Your task to perform on an android device: Go to wifi settings Image 0: 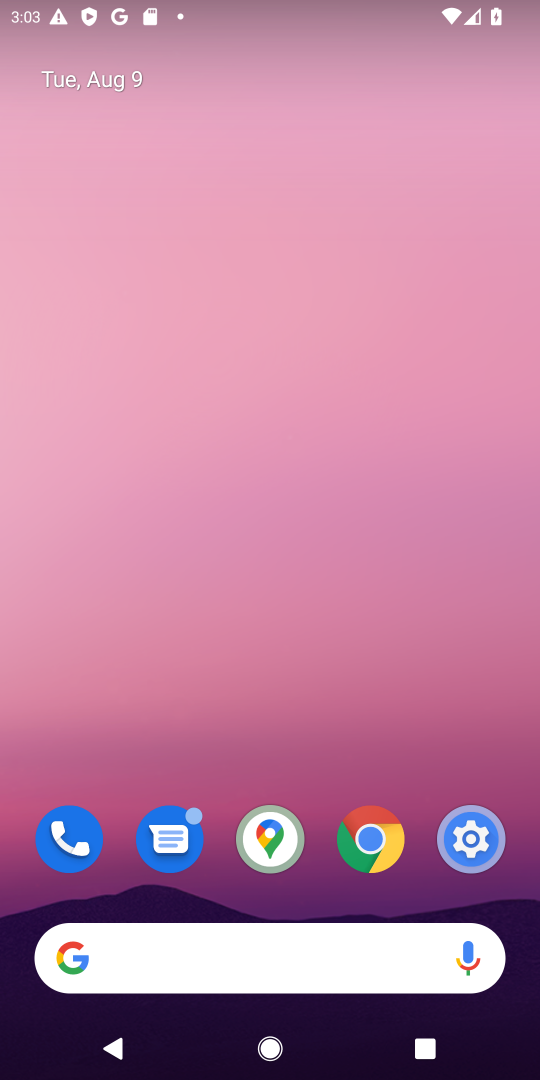
Step 0: press home button
Your task to perform on an android device: Go to wifi settings Image 1: 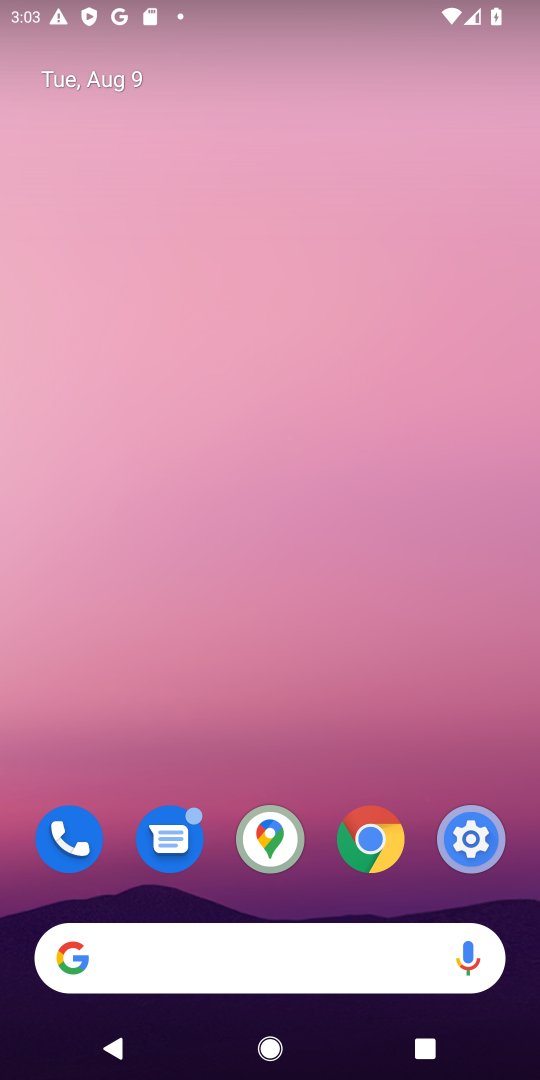
Step 1: drag from (407, 765) to (514, 44)
Your task to perform on an android device: Go to wifi settings Image 2: 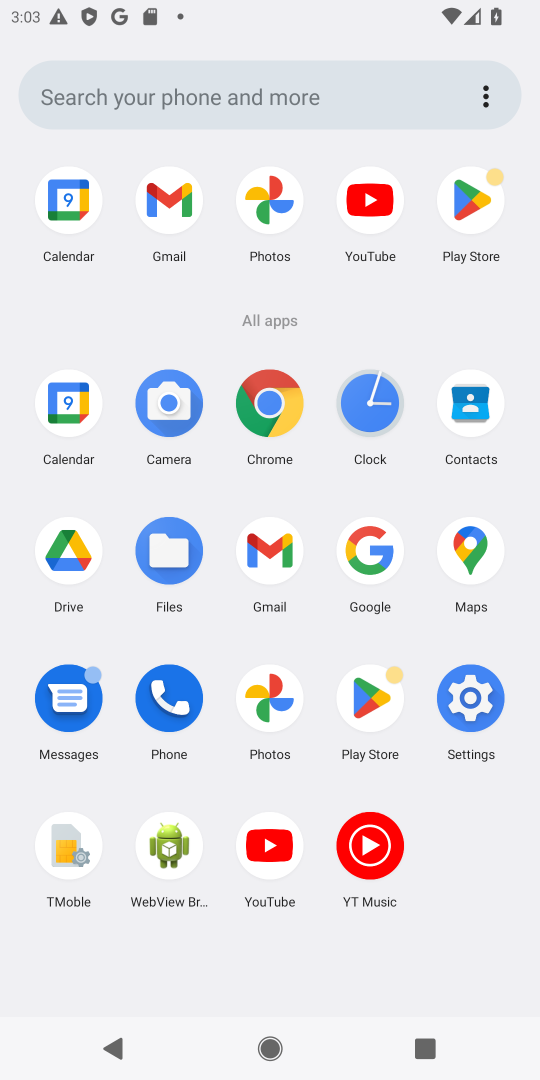
Step 2: click (465, 684)
Your task to perform on an android device: Go to wifi settings Image 3: 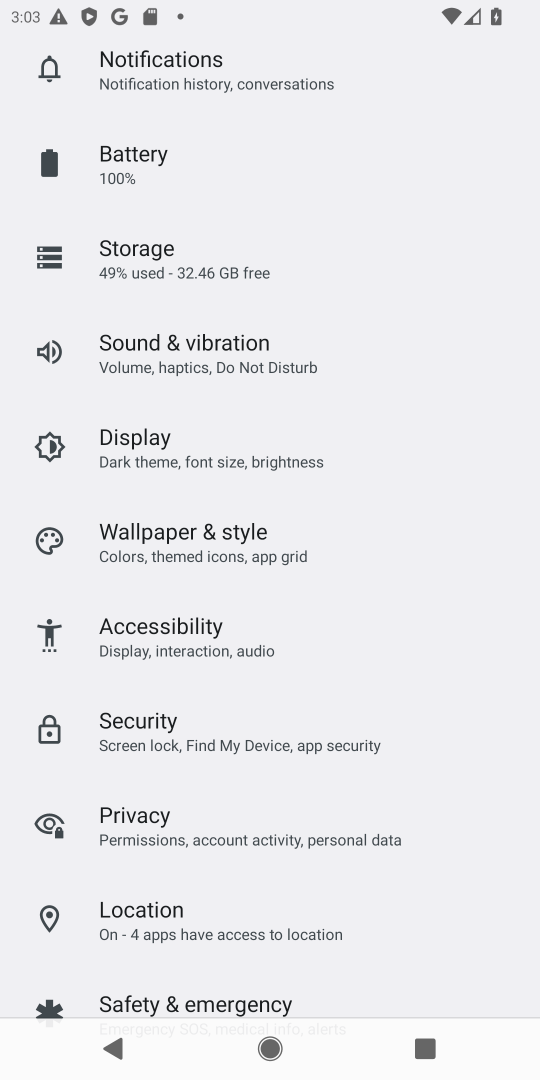
Step 3: drag from (309, 125) to (296, 660)
Your task to perform on an android device: Go to wifi settings Image 4: 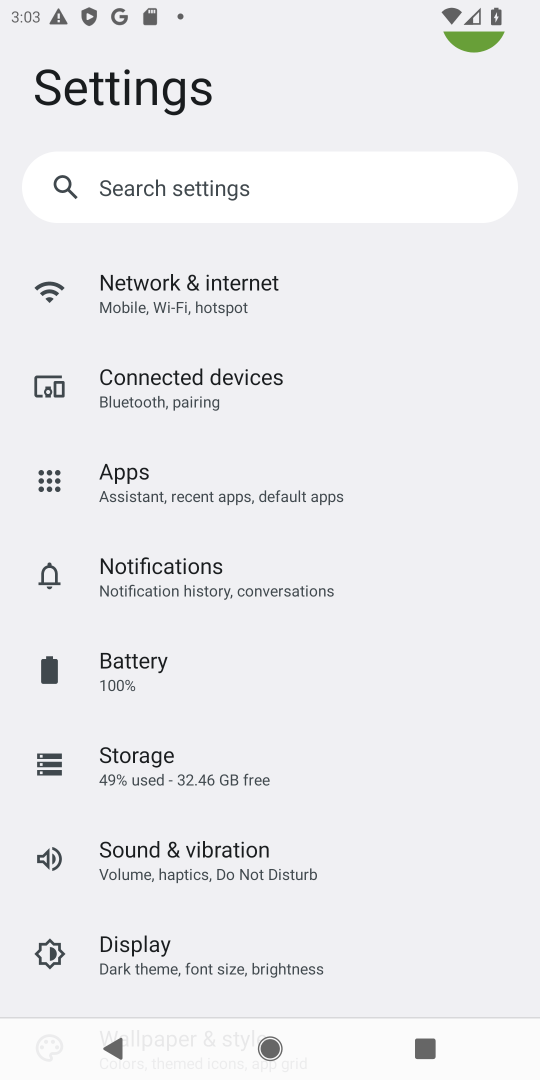
Step 4: click (230, 279)
Your task to perform on an android device: Go to wifi settings Image 5: 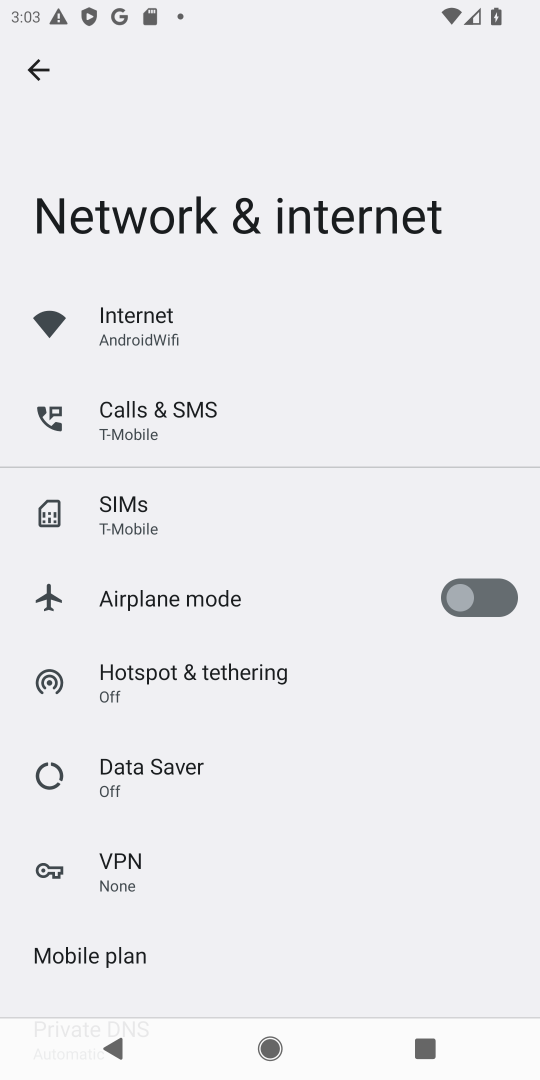
Step 5: click (152, 337)
Your task to perform on an android device: Go to wifi settings Image 6: 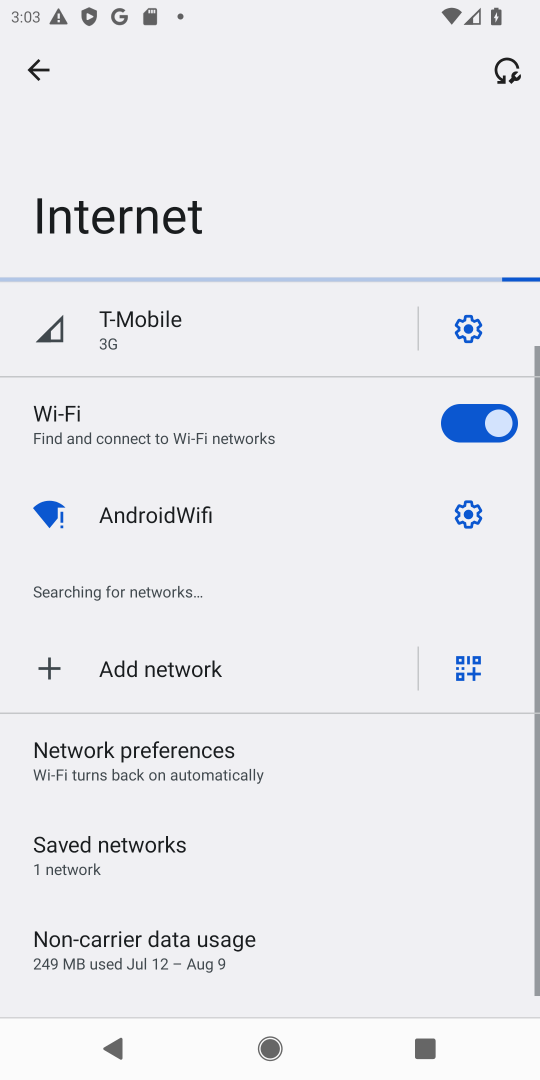
Step 6: click (179, 510)
Your task to perform on an android device: Go to wifi settings Image 7: 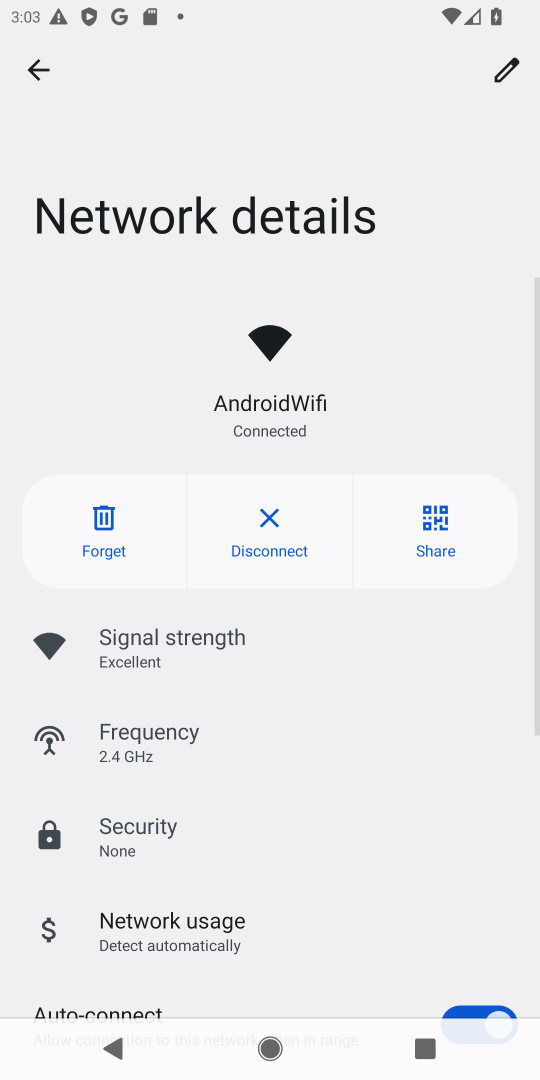
Step 7: task complete